Your task to perform on an android device: Find coffee shops on Maps Image 0: 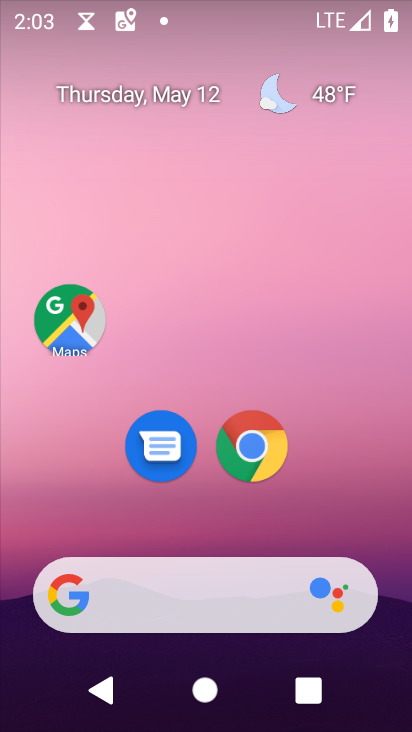
Step 0: drag from (315, 461) to (338, 74)
Your task to perform on an android device: Find coffee shops on Maps Image 1: 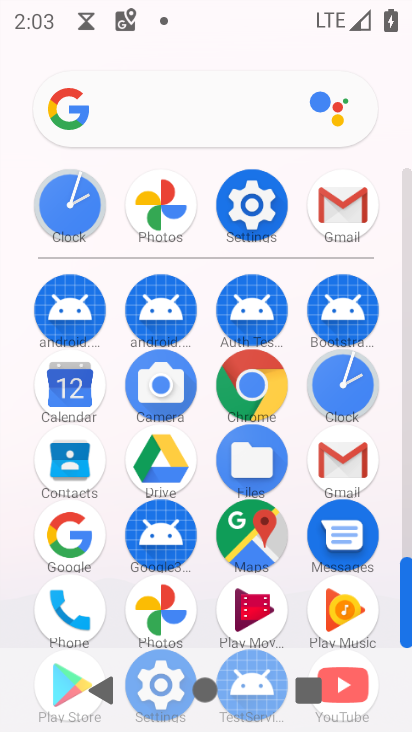
Step 1: click (257, 528)
Your task to perform on an android device: Find coffee shops on Maps Image 2: 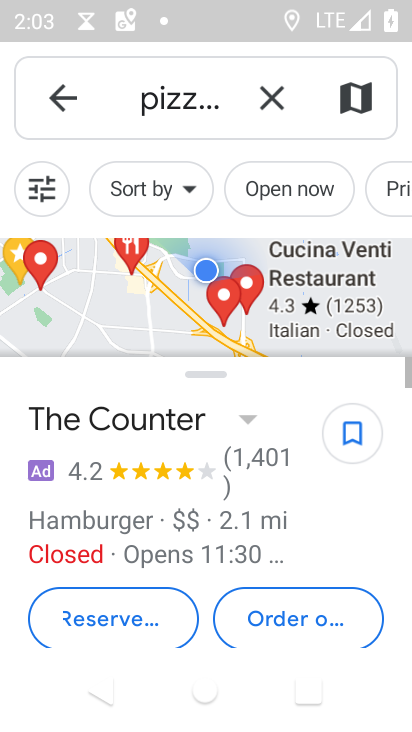
Step 2: click (273, 104)
Your task to perform on an android device: Find coffee shops on Maps Image 3: 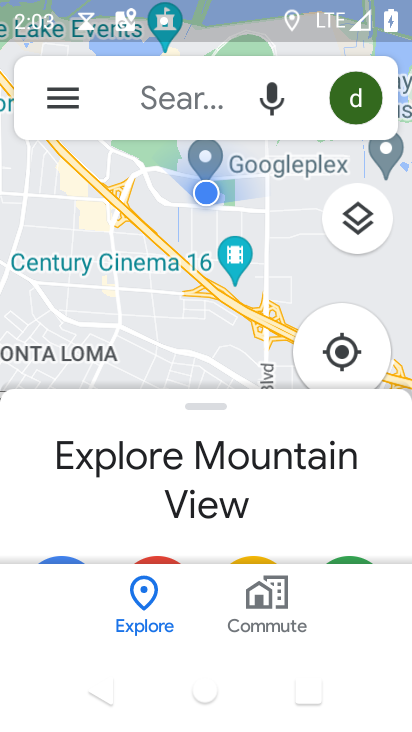
Step 3: click (188, 106)
Your task to perform on an android device: Find coffee shops on Maps Image 4: 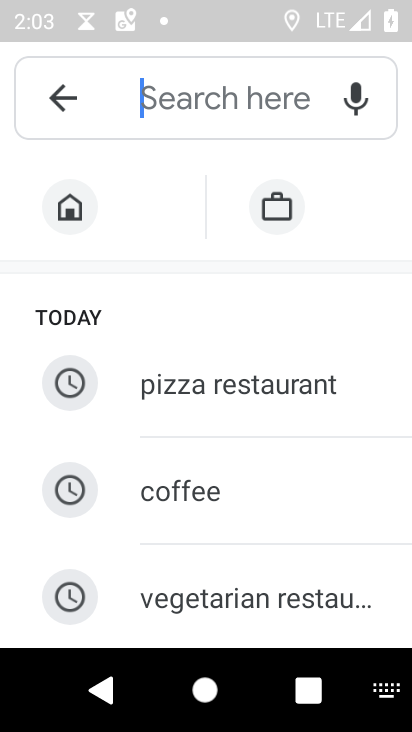
Step 4: type "coffee shops"
Your task to perform on an android device: Find coffee shops on Maps Image 5: 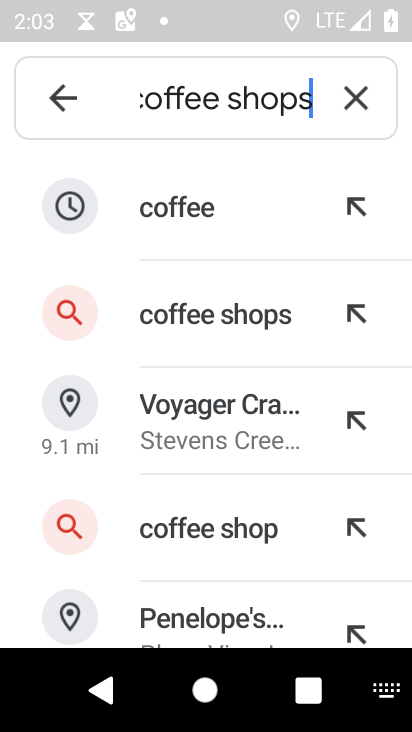
Step 5: click (234, 324)
Your task to perform on an android device: Find coffee shops on Maps Image 6: 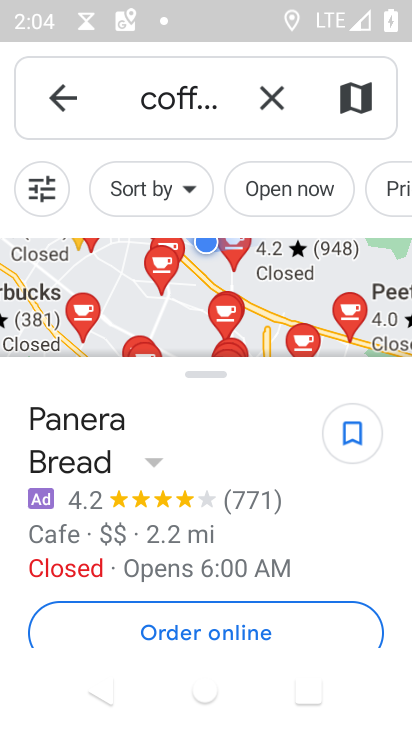
Step 6: task complete